Your task to perform on an android device: turn off translation in the chrome app Image 0: 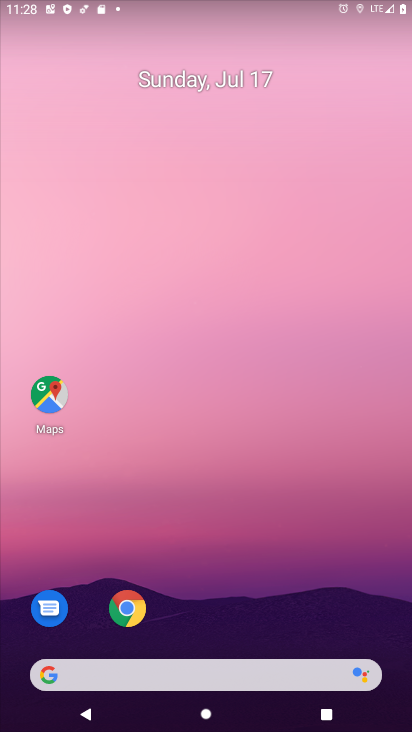
Step 0: drag from (212, 642) to (178, 5)
Your task to perform on an android device: turn off translation in the chrome app Image 1: 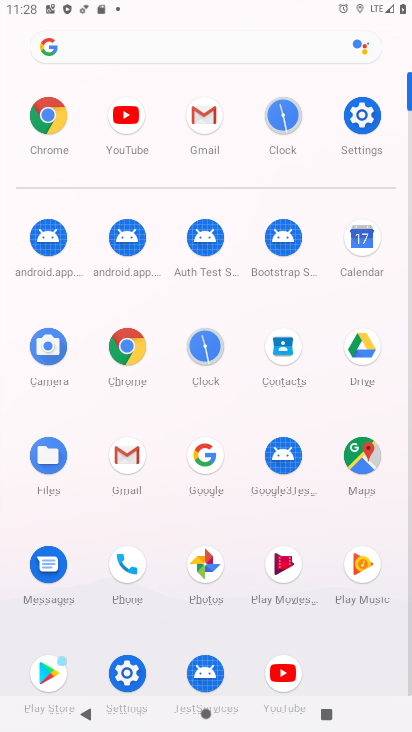
Step 1: click (130, 348)
Your task to perform on an android device: turn off translation in the chrome app Image 2: 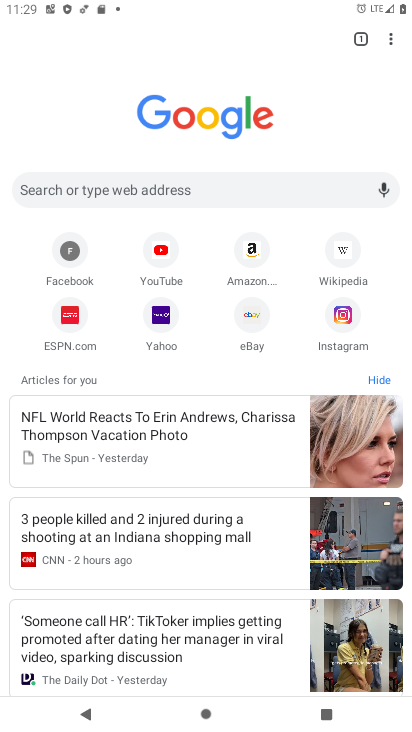
Step 2: drag from (392, 37) to (271, 329)
Your task to perform on an android device: turn off translation in the chrome app Image 3: 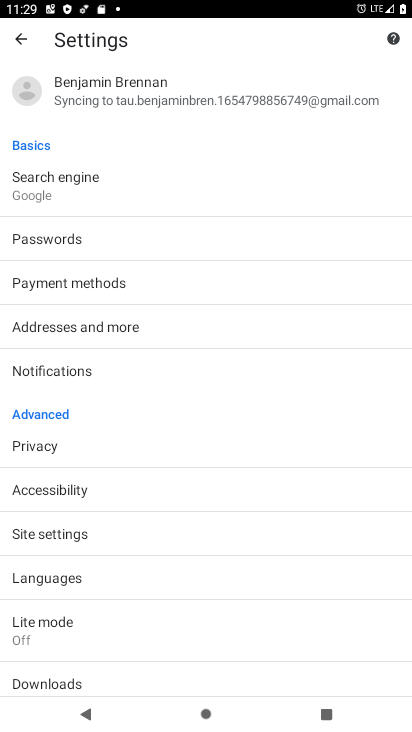
Step 3: click (110, 580)
Your task to perform on an android device: turn off translation in the chrome app Image 4: 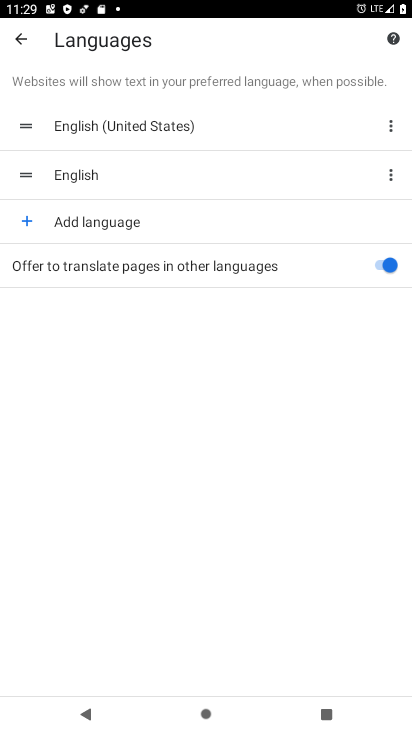
Step 4: click (384, 264)
Your task to perform on an android device: turn off translation in the chrome app Image 5: 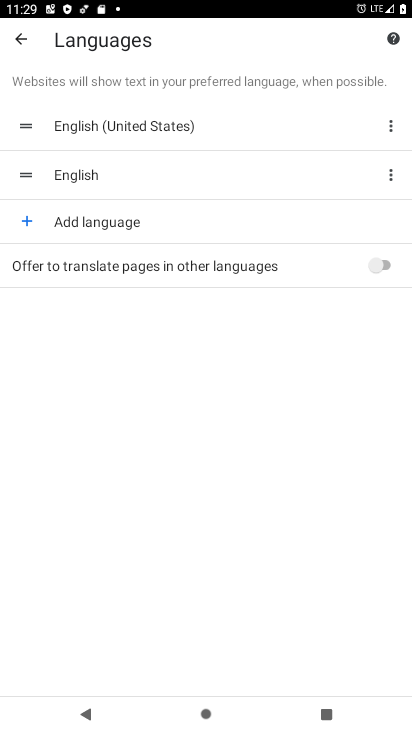
Step 5: task complete